Your task to perform on an android device: check battery use Image 0: 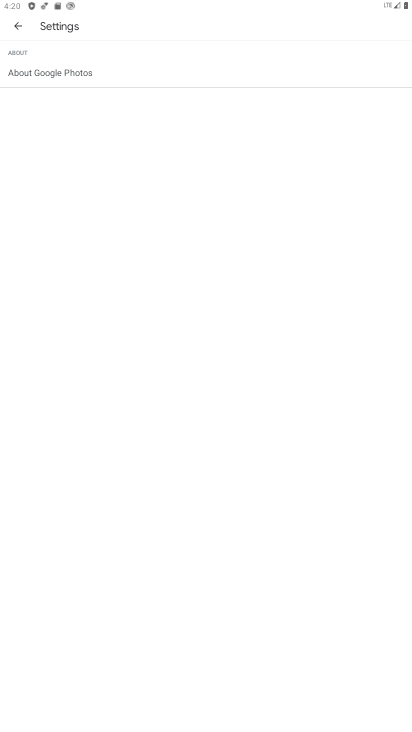
Step 0: press home button
Your task to perform on an android device: check battery use Image 1: 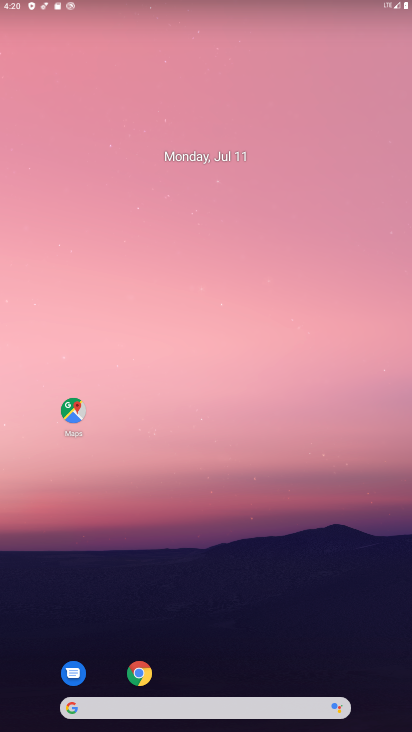
Step 1: drag from (332, 638) to (292, 117)
Your task to perform on an android device: check battery use Image 2: 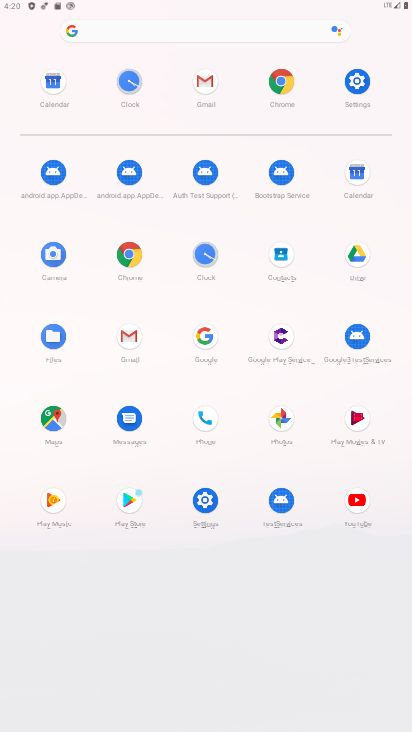
Step 2: click (356, 79)
Your task to perform on an android device: check battery use Image 3: 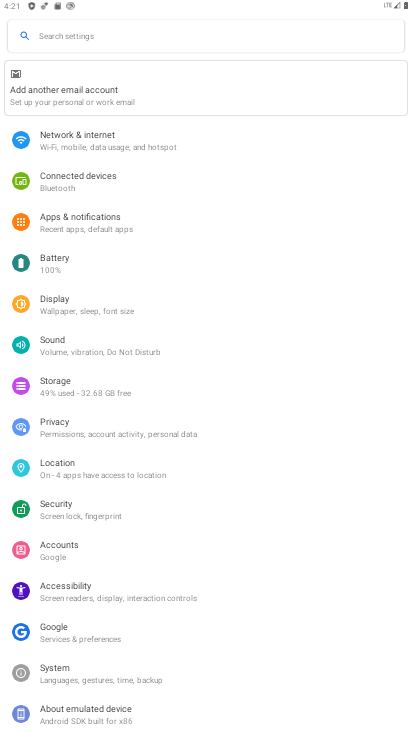
Step 3: click (42, 256)
Your task to perform on an android device: check battery use Image 4: 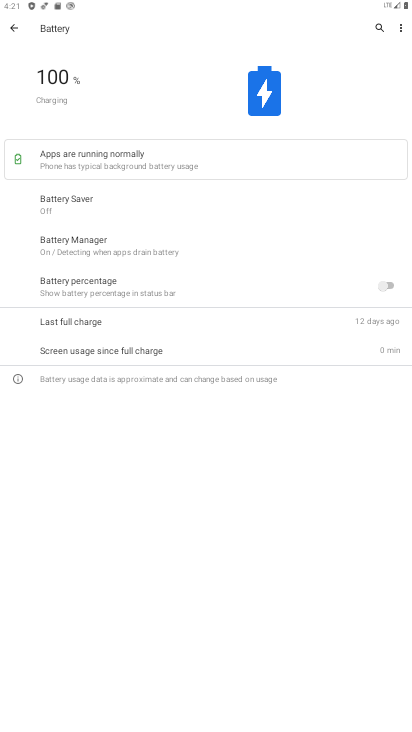
Step 4: click (404, 24)
Your task to perform on an android device: check battery use Image 5: 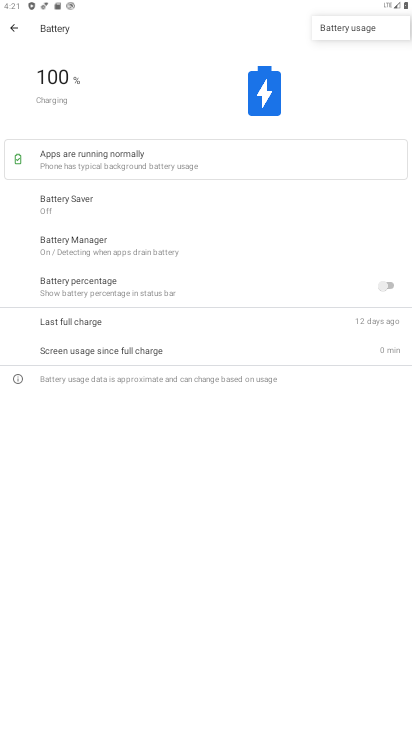
Step 5: click (376, 29)
Your task to perform on an android device: check battery use Image 6: 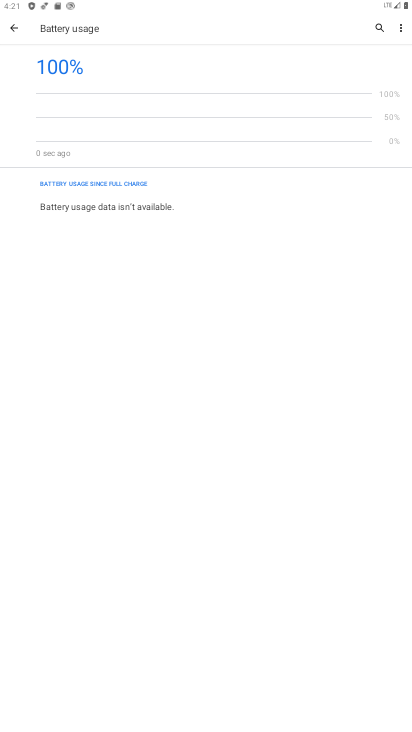
Step 6: task complete